Your task to perform on an android device: Open internet settings Image 0: 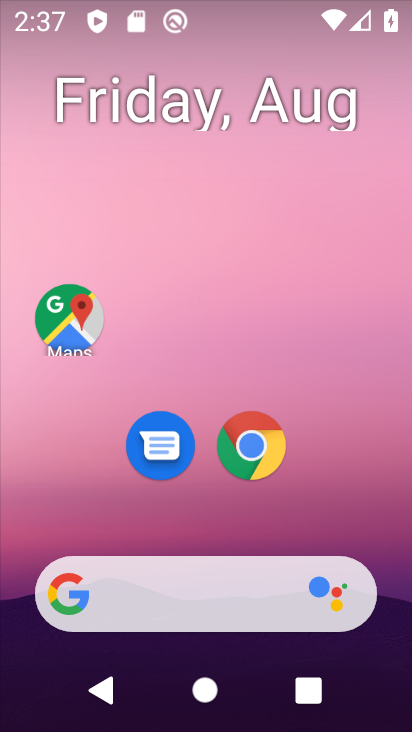
Step 0: drag from (337, 476) to (357, 149)
Your task to perform on an android device: Open internet settings Image 1: 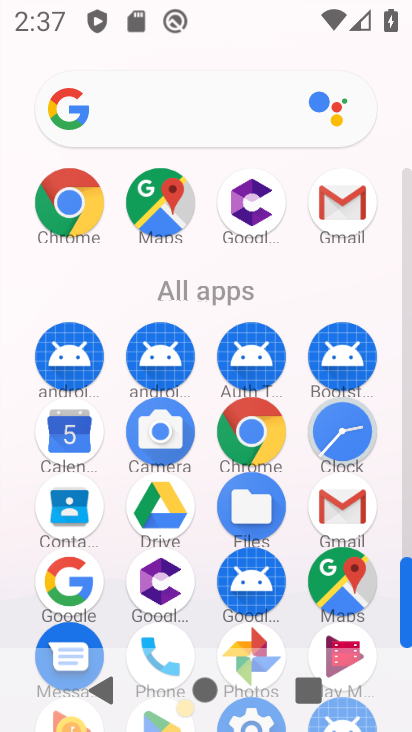
Step 1: drag from (301, 604) to (313, 293)
Your task to perform on an android device: Open internet settings Image 2: 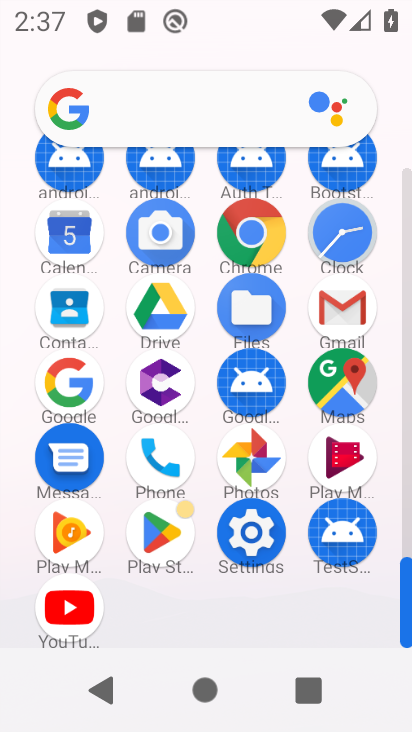
Step 2: click (263, 535)
Your task to perform on an android device: Open internet settings Image 3: 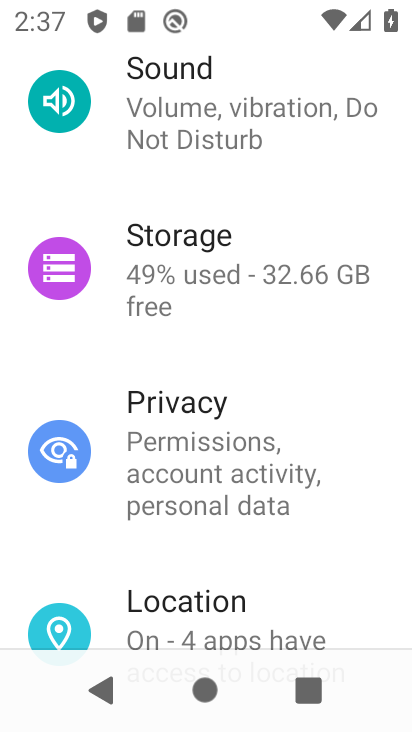
Step 3: drag from (292, 198) to (310, 531)
Your task to perform on an android device: Open internet settings Image 4: 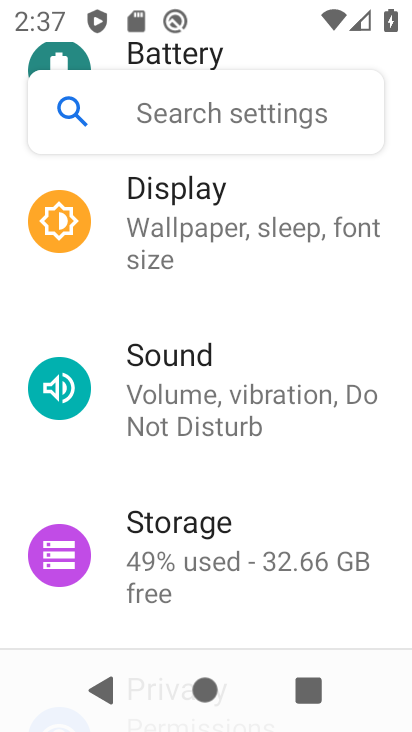
Step 4: drag from (289, 274) to (272, 558)
Your task to perform on an android device: Open internet settings Image 5: 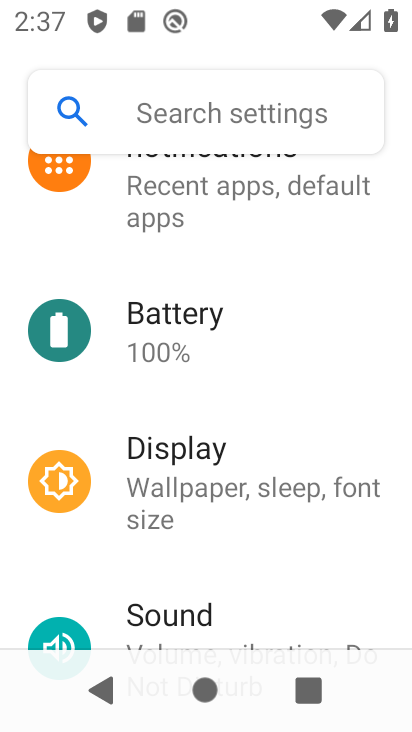
Step 5: drag from (299, 284) to (310, 535)
Your task to perform on an android device: Open internet settings Image 6: 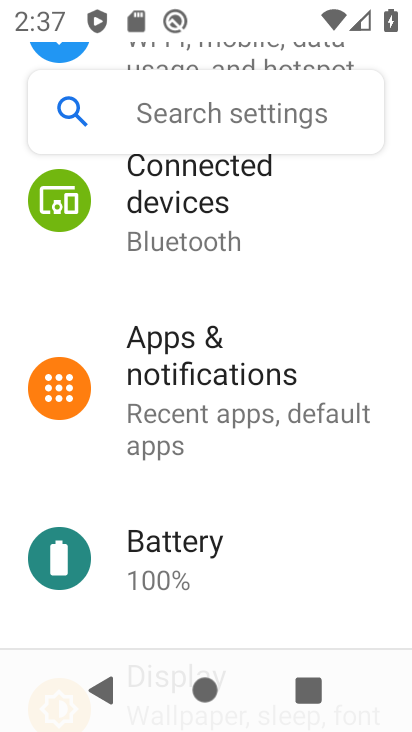
Step 6: drag from (302, 237) to (292, 571)
Your task to perform on an android device: Open internet settings Image 7: 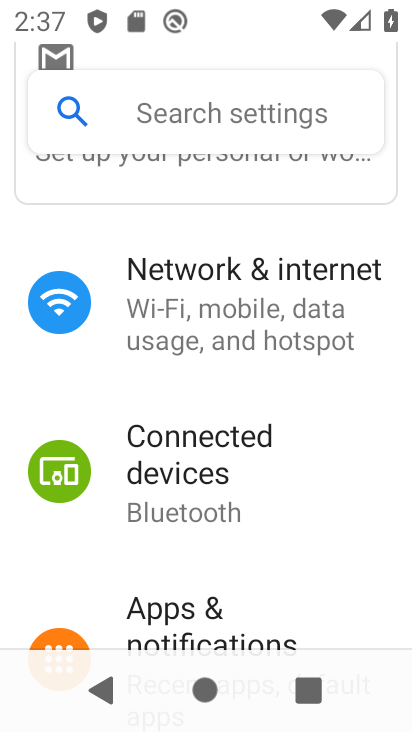
Step 7: click (289, 318)
Your task to perform on an android device: Open internet settings Image 8: 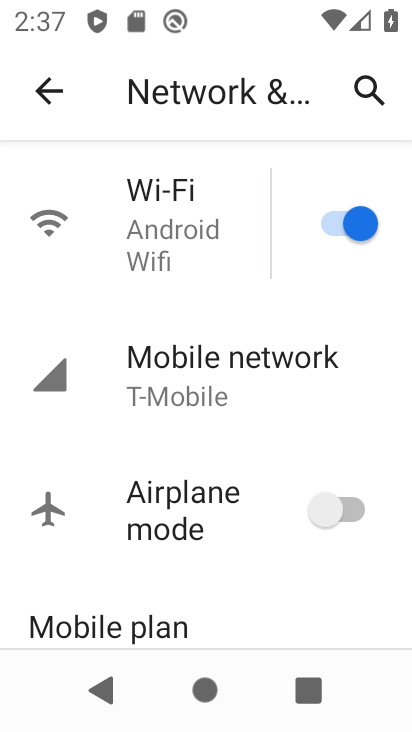
Step 8: drag from (184, 492) to (228, 185)
Your task to perform on an android device: Open internet settings Image 9: 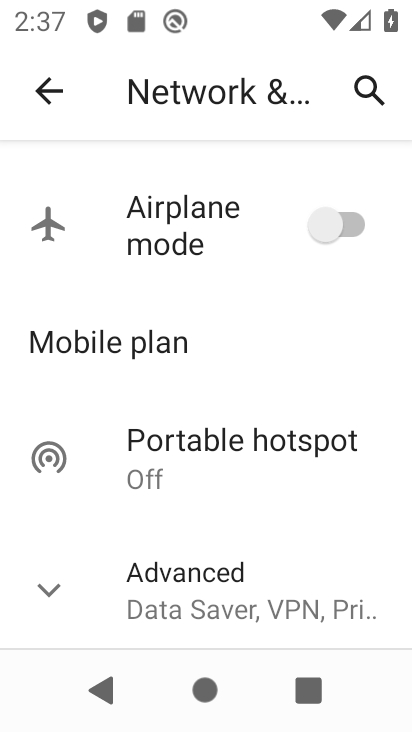
Step 9: drag from (302, 569) to (322, 283)
Your task to perform on an android device: Open internet settings Image 10: 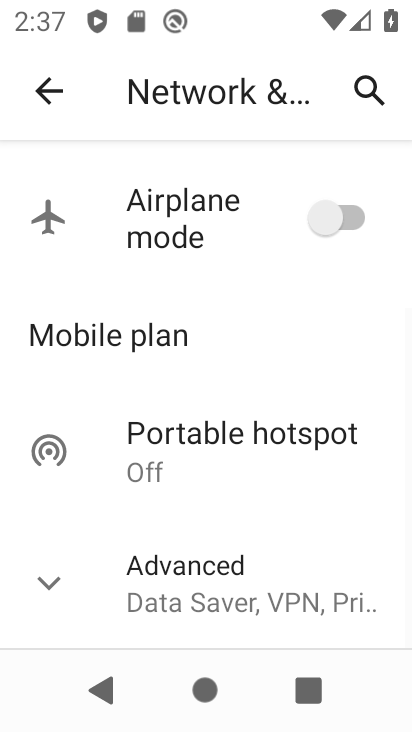
Step 10: click (246, 601)
Your task to perform on an android device: Open internet settings Image 11: 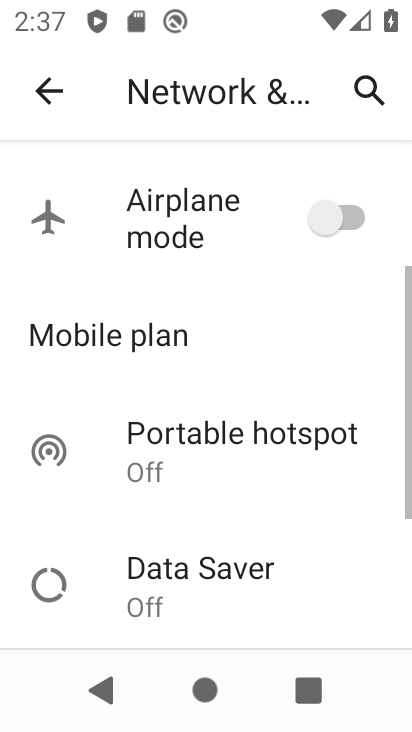
Step 11: task complete